Your task to perform on an android device: Open location settings Image 0: 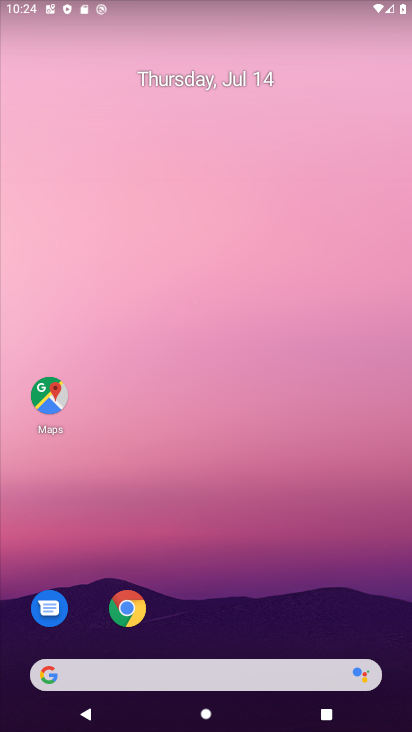
Step 0: drag from (221, 705) to (187, 162)
Your task to perform on an android device: Open location settings Image 1: 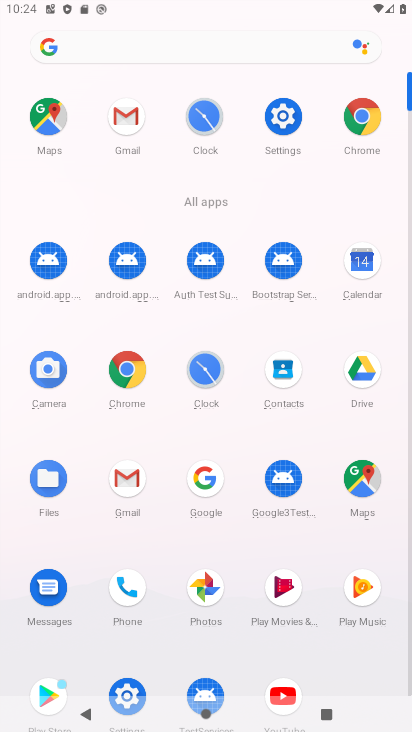
Step 1: click (288, 114)
Your task to perform on an android device: Open location settings Image 2: 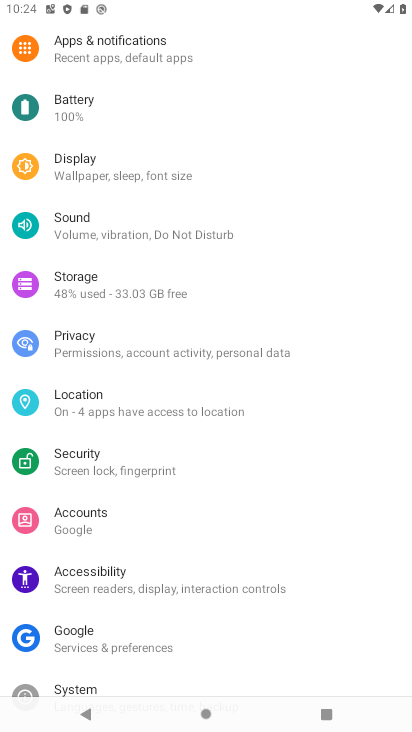
Step 2: click (85, 399)
Your task to perform on an android device: Open location settings Image 3: 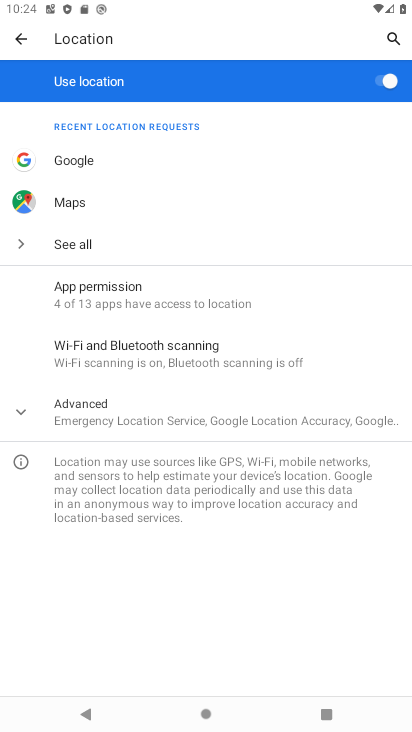
Step 3: task complete